Your task to perform on an android device: find snoozed emails in the gmail app Image 0: 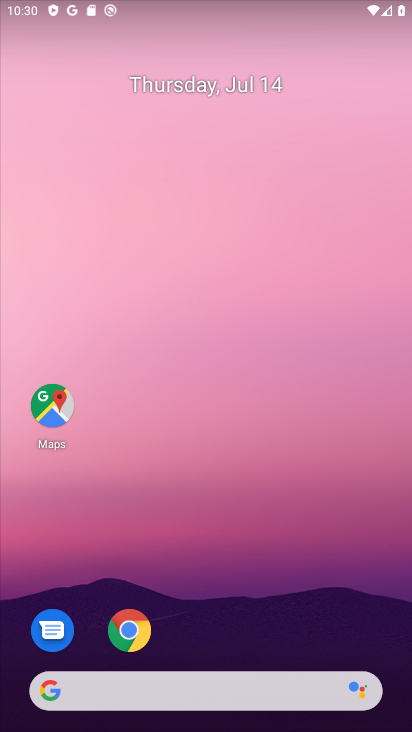
Step 0: drag from (293, 320) to (178, 10)
Your task to perform on an android device: find snoozed emails in the gmail app Image 1: 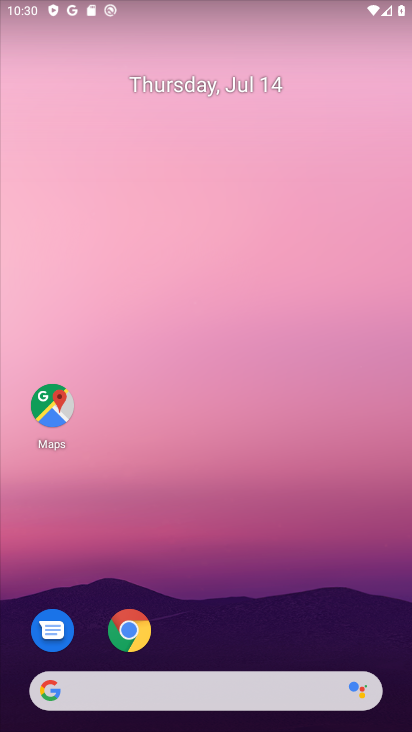
Step 1: drag from (287, 686) to (205, 65)
Your task to perform on an android device: find snoozed emails in the gmail app Image 2: 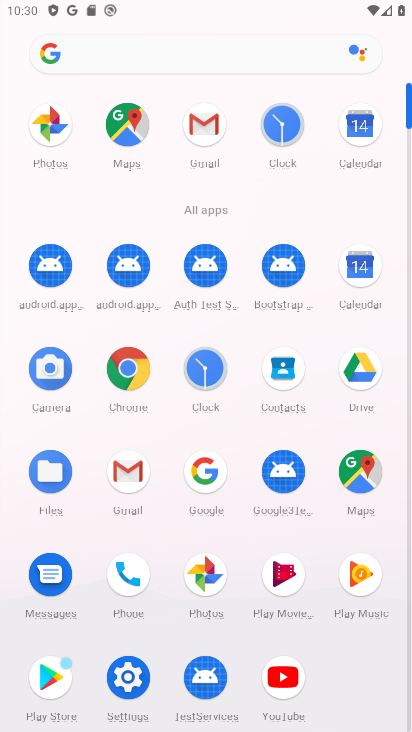
Step 2: click (209, 122)
Your task to perform on an android device: find snoozed emails in the gmail app Image 3: 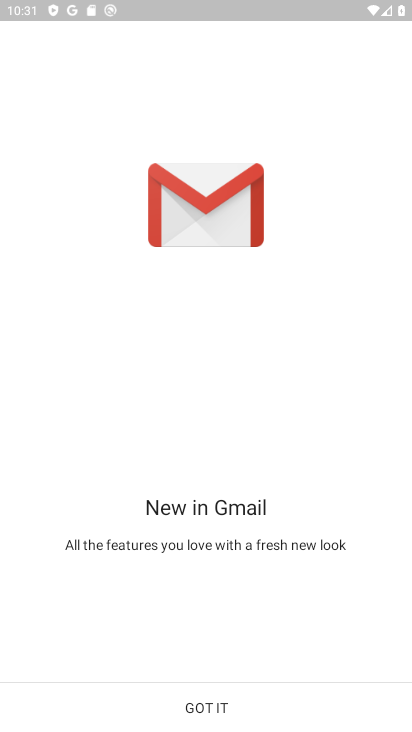
Step 3: click (206, 702)
Your task to perform on an android device: find snoozed emails in the gmail app Image 4: 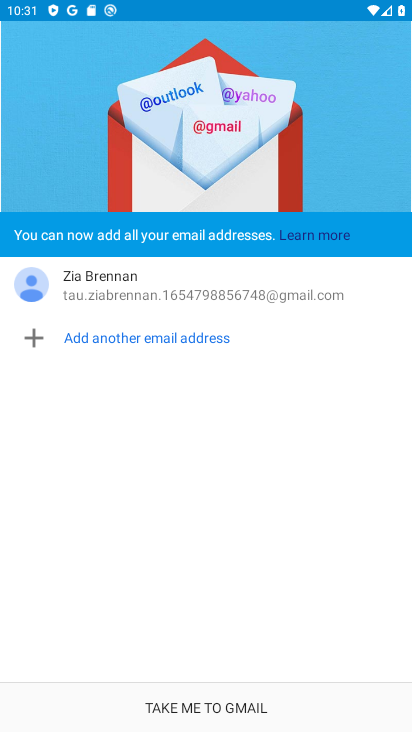
Step 4: click (229, 698)
Your task to perform on an android device: find snoozed emails in the gmail app Image 5: 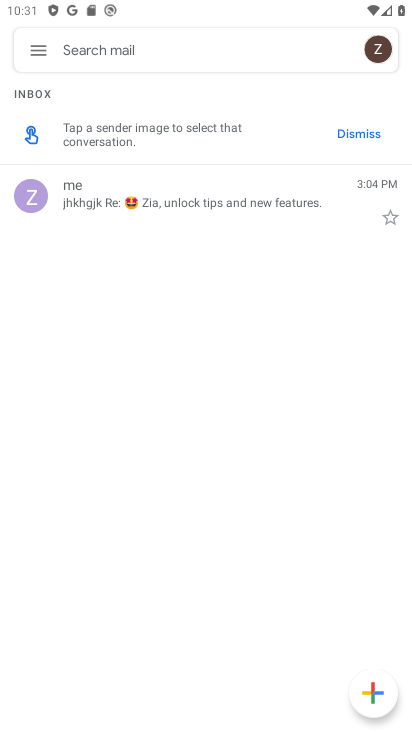
Step 5: click (42, 45)
Your task to perform on an android device: find snoozed emails in the gmail app Image 6: 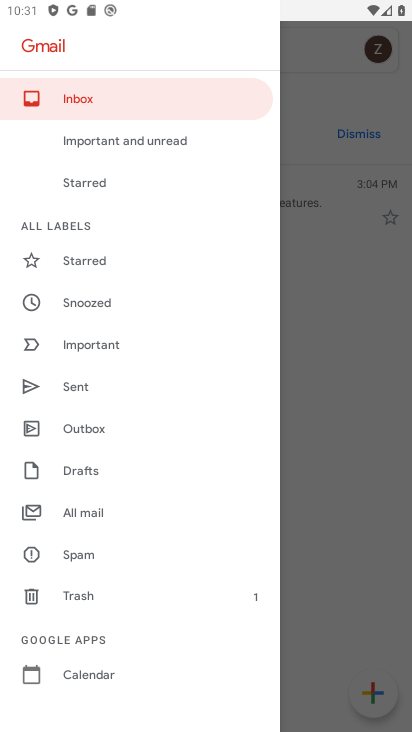
Step 6: click (90, 314)
Your task to perform on an android device: find snoozed emails in the gmail app Image 7: 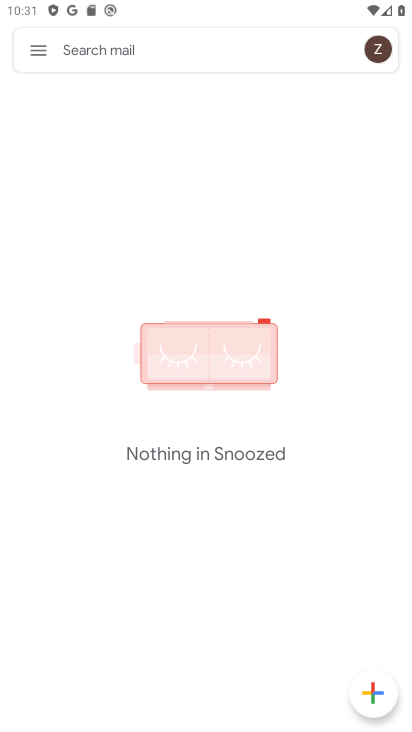
Step 7: task complete